Your task to perform on an android device: open chrome and create a bookmark for the current page Image 0: 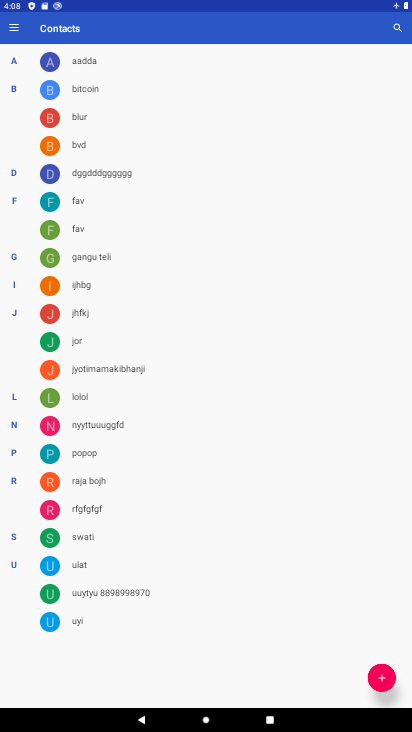
Step 0: press home button
Your task to perform on an android device: open chrome and create a bookmark for the current page Image 1: 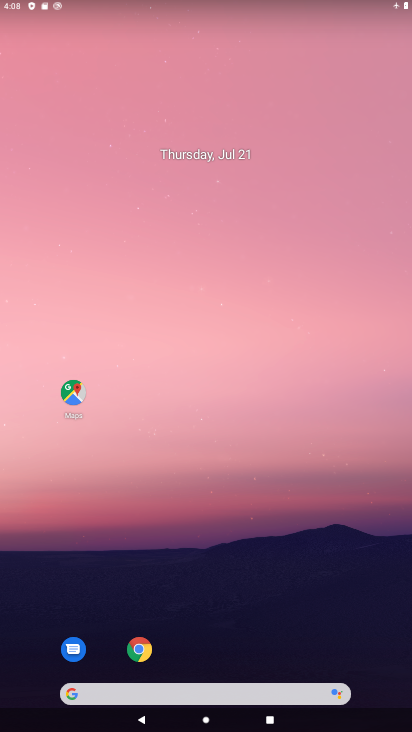
Step 1: click (139, 655)
Your task to perform on an android device: open chrome and create a bookmark for the current page Image 2: 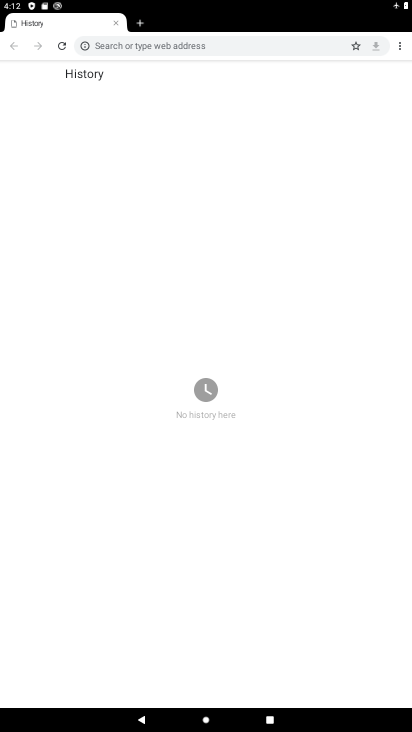
Step 2: click (396, 43)
Your task to perform on an android device: open chrome and create a bookmark for the current page Image 3: 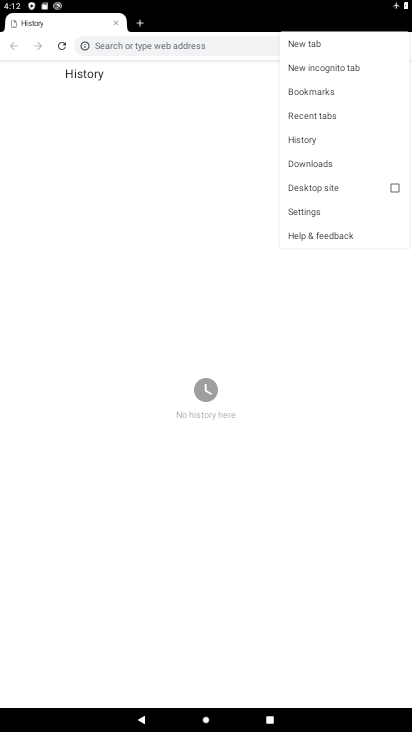
Step 3: click (229, 99)
Your task to perform on an android device: open chrome and create a bookmark for the current page Image 4: 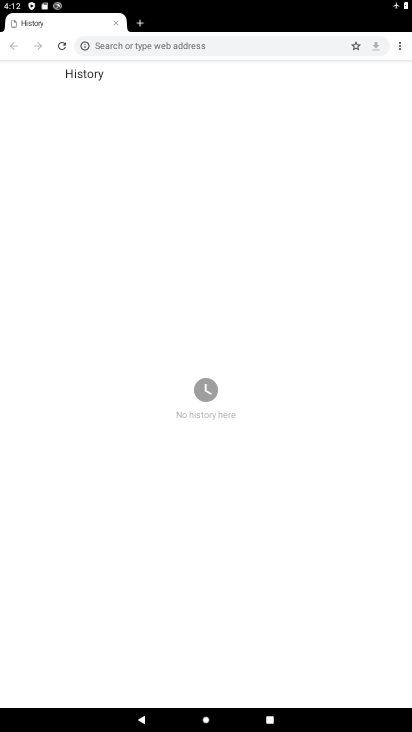
Step 4: click (354, 45)
Your task to perform on an android device: open chrome and create a bookmark for the current page Image 5: 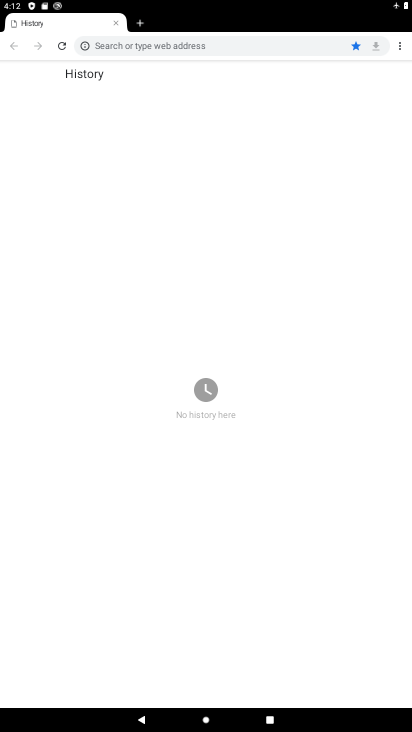
Step 5: task complete